Your task to perform on an android device: toggle wifi Image 0: 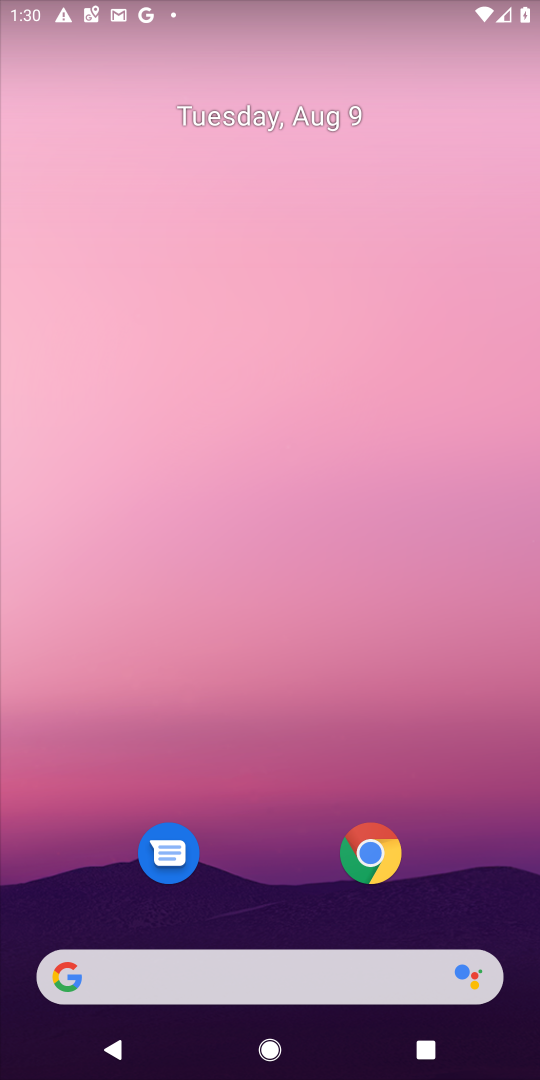
Step 0: press home button
Your task to perform on an android device: toggle wifi Image 1: 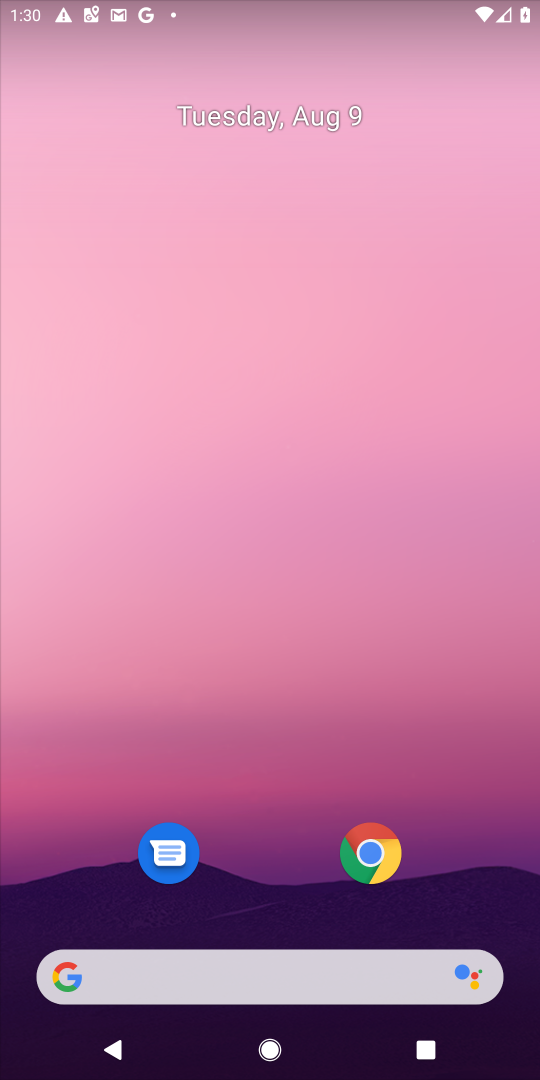
Step 1: drag from (239, 15) to (103, 868)
Your task to perform on an android device: toggle wifi Image 2: 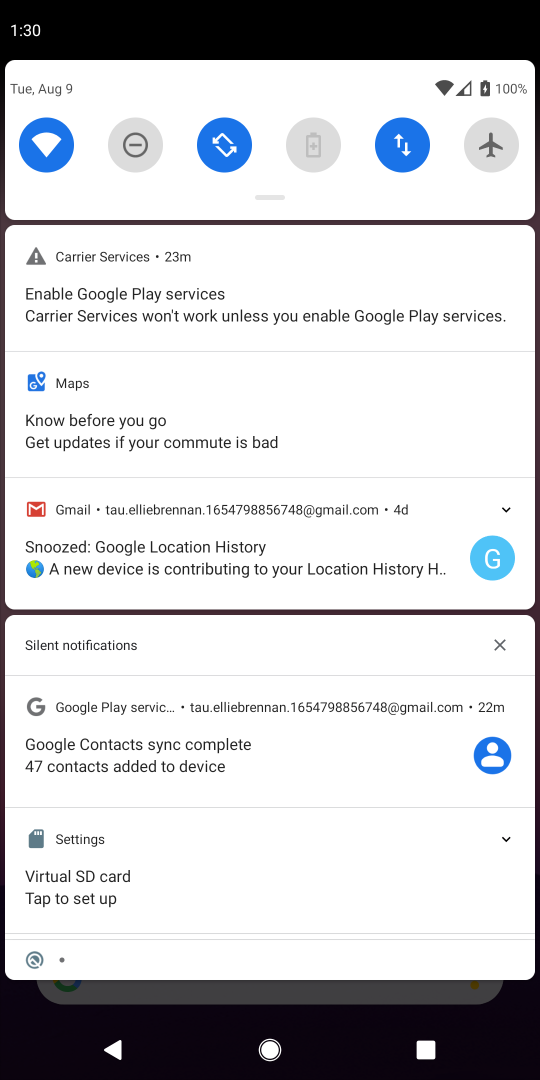
Step 2: click (41, 151)
Your task to perform on an android device: toggle wifi Image 3: 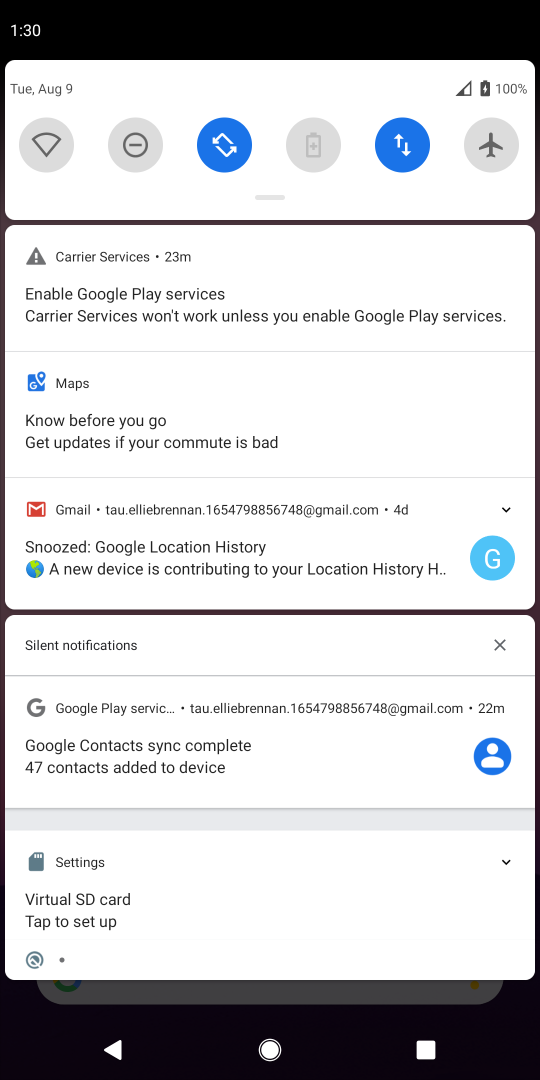
Step 3: task complete